Your task to perform on an android device: toggle translation in the chrome app Image 0: 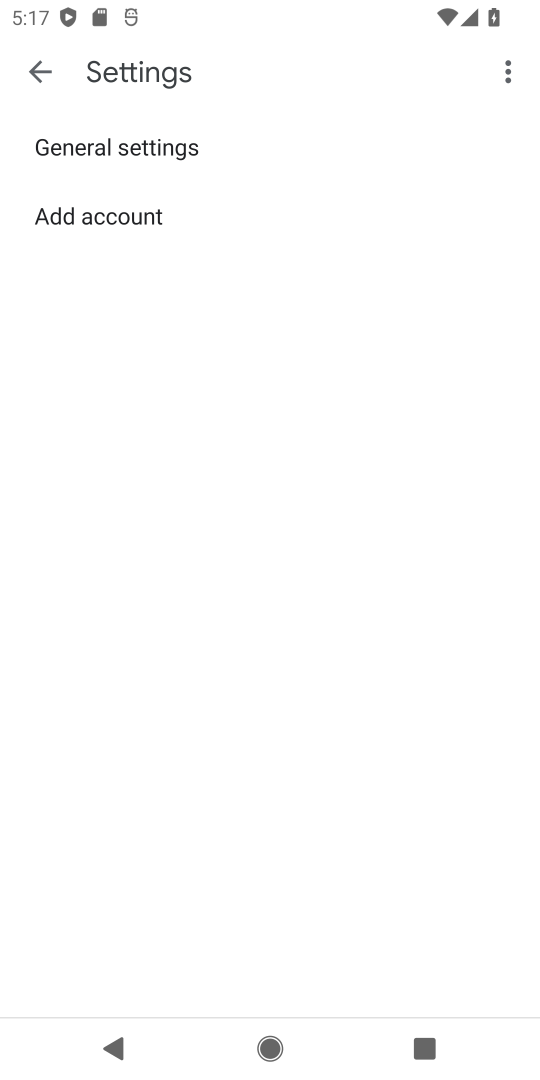
Step 0: press home button
Your task to perform on an android device: toggle translation in the chrome app Image 1: 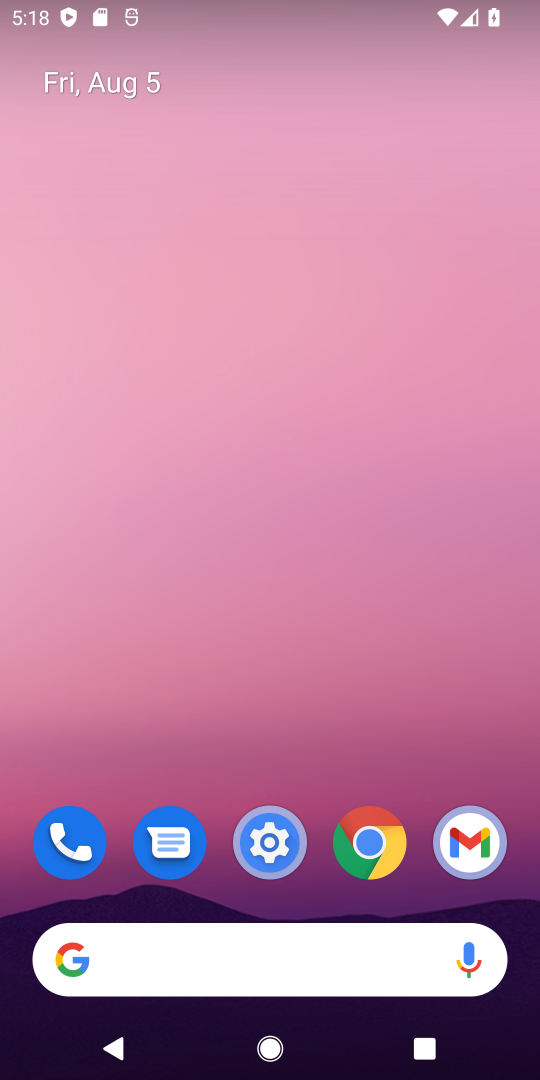
Step 1: click (357, 832)
Your task to perform on an android device: toggle translation in the chrome app Image 2: 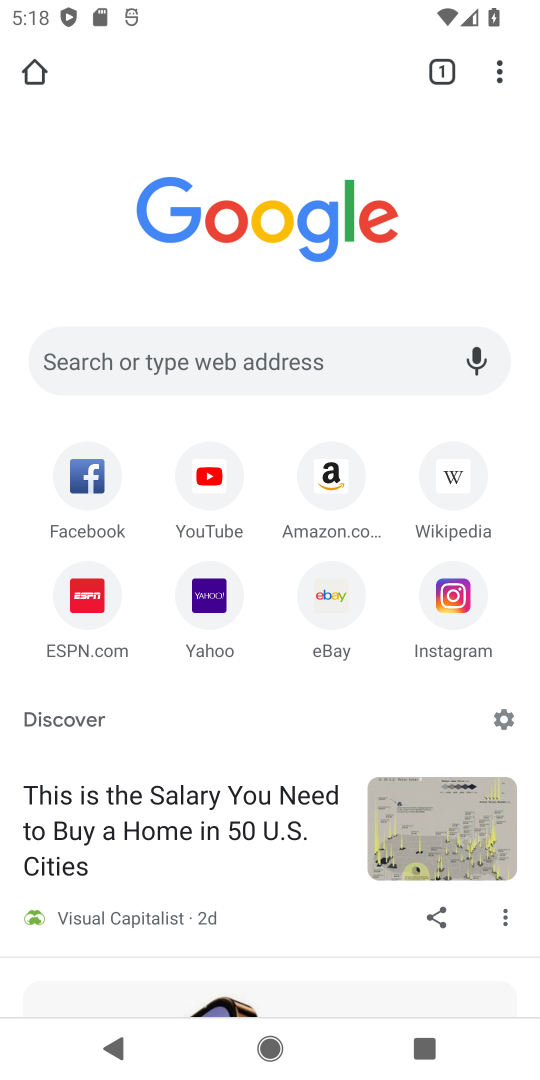
Step 2: drag from (502, 65) to (251, 665)
Your task to perform on an android device: toggle translation in the chrome app Image 3: 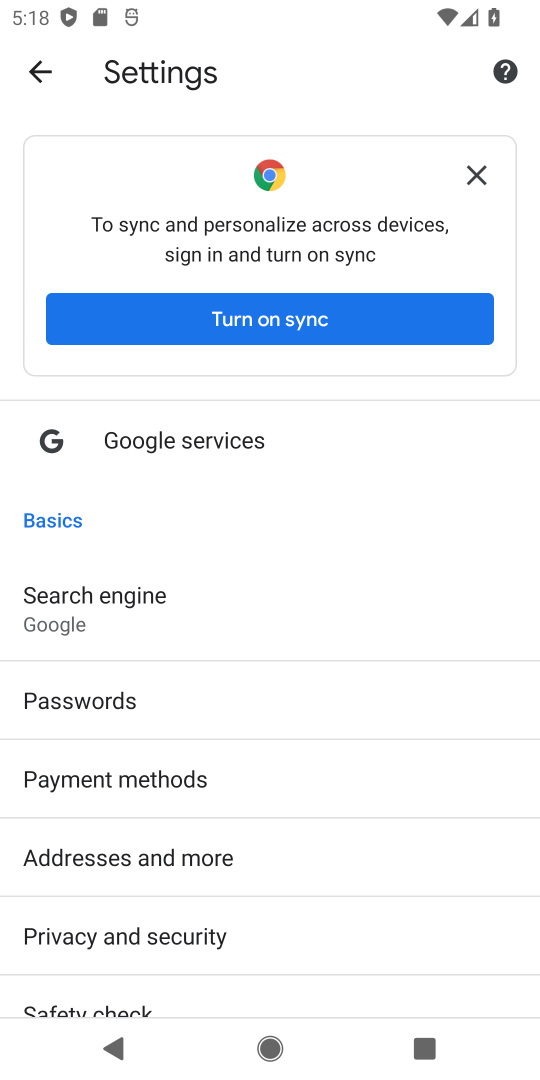
Step 3: drag from (281, 555) to (244, 49)
Your task to perform on an android device: toggle translation in the chrome app Image 4: 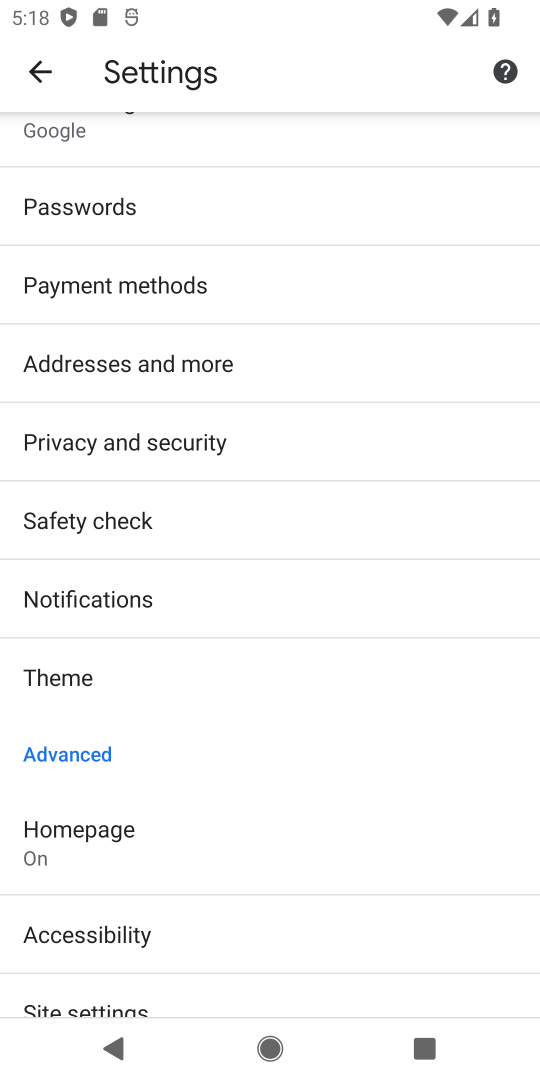
Step 4: drag from (290, 760) to (431, 274)
Your task to perform on an android device: toggle translation in the chrome app Image 5: 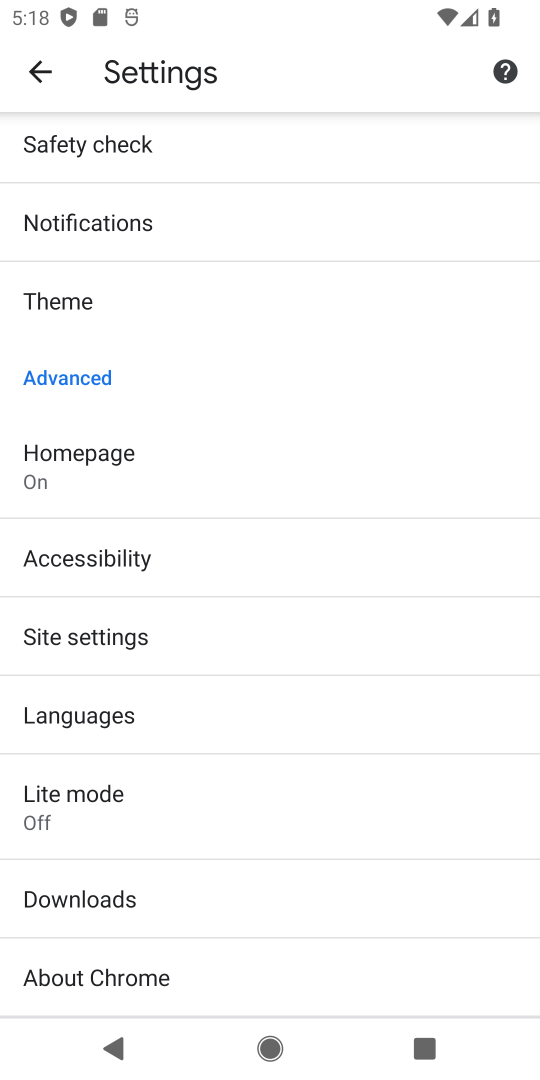
Step 5: click (154, 735)
Your task to perform on an android device: toggle translation in the chrome app Image 6: 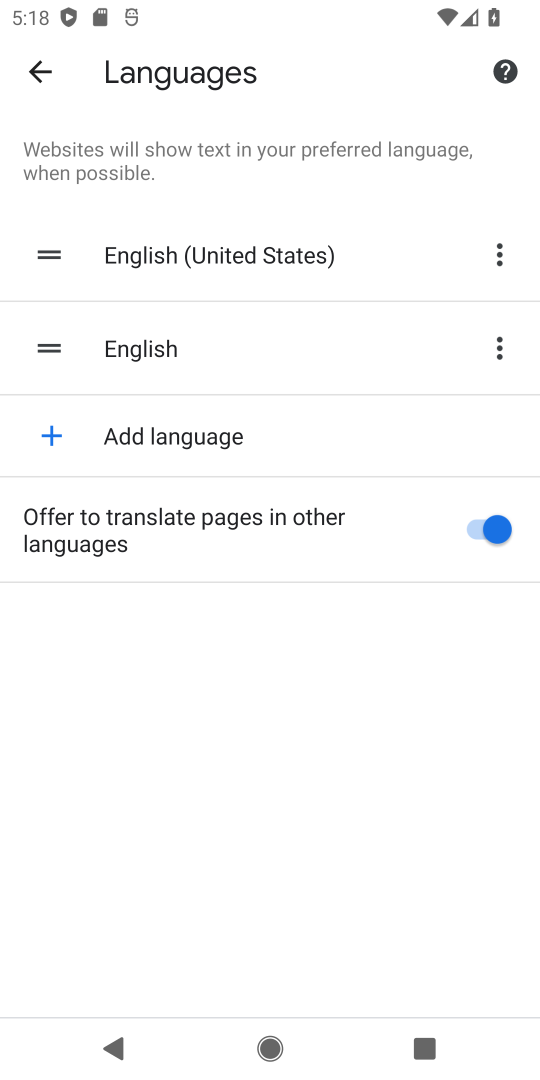
Step 6: click (476, 518)
Your task to perform on an android device: toggle translation in the chrome app Image 7: 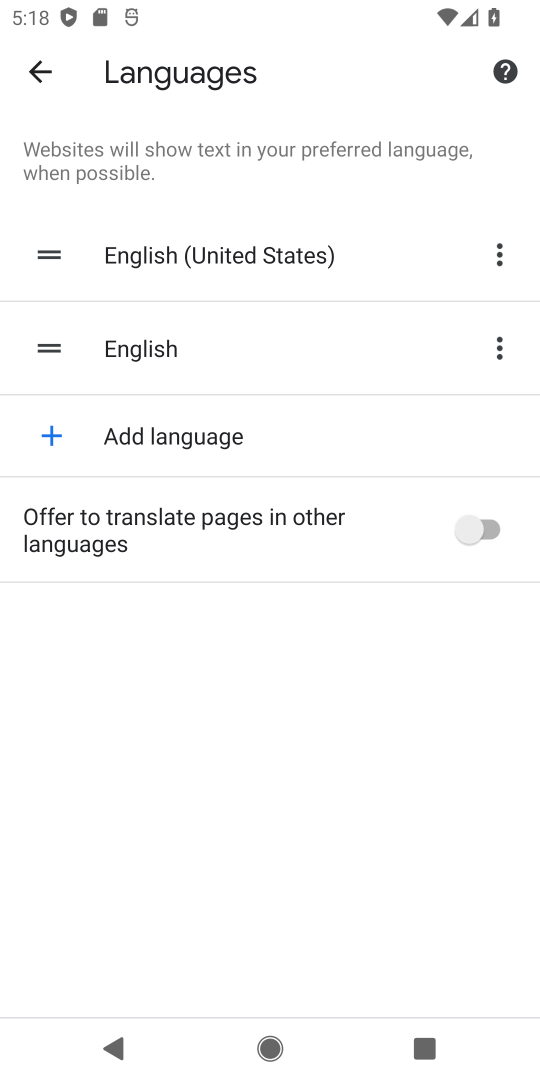
Step 7: task complete